Your task to perform on an android device: open app "Paramount+ | Peak Streaming" (install if not already installed) and go to login screen Image 0: 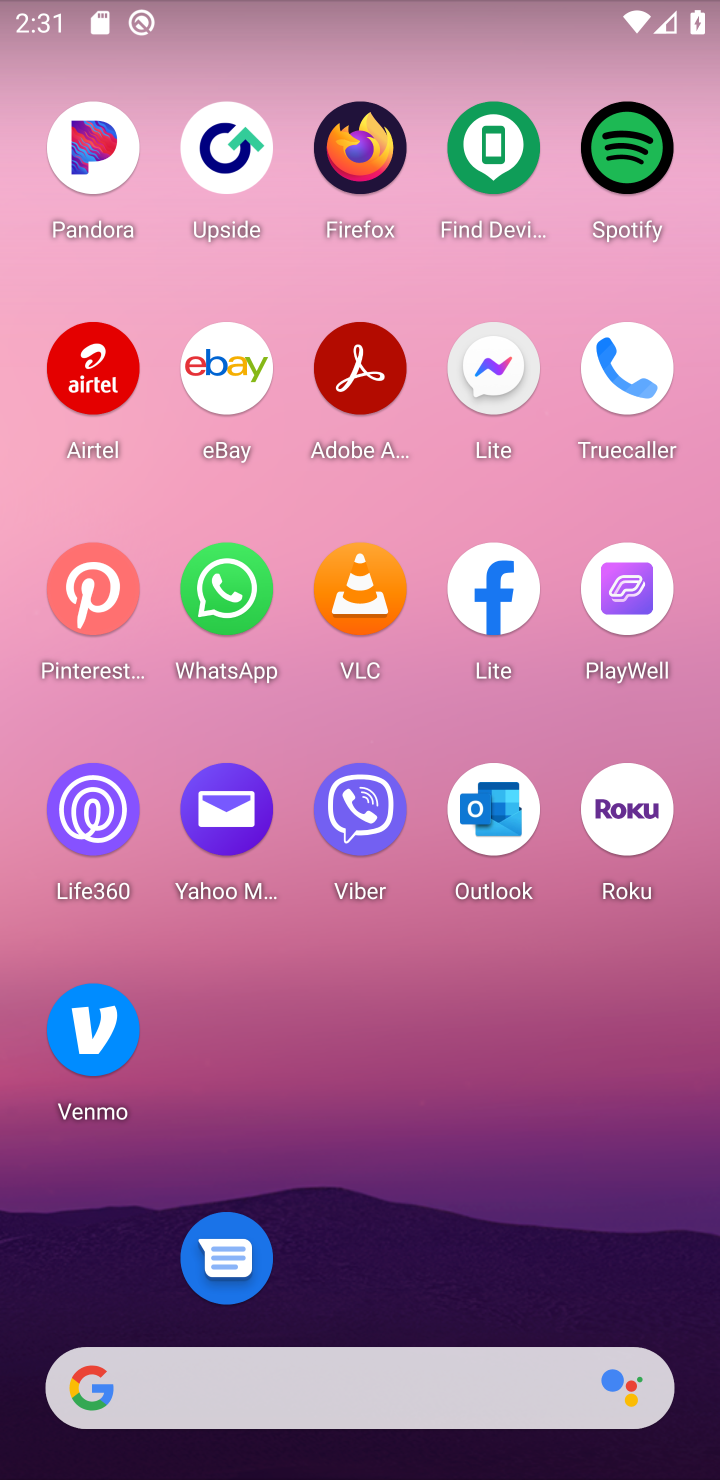
Step 0: press home button
Your task to perform on an android device: open app "Paramount+ | Peak Streaming" (install if not already installed) and go to login screen Image 1: 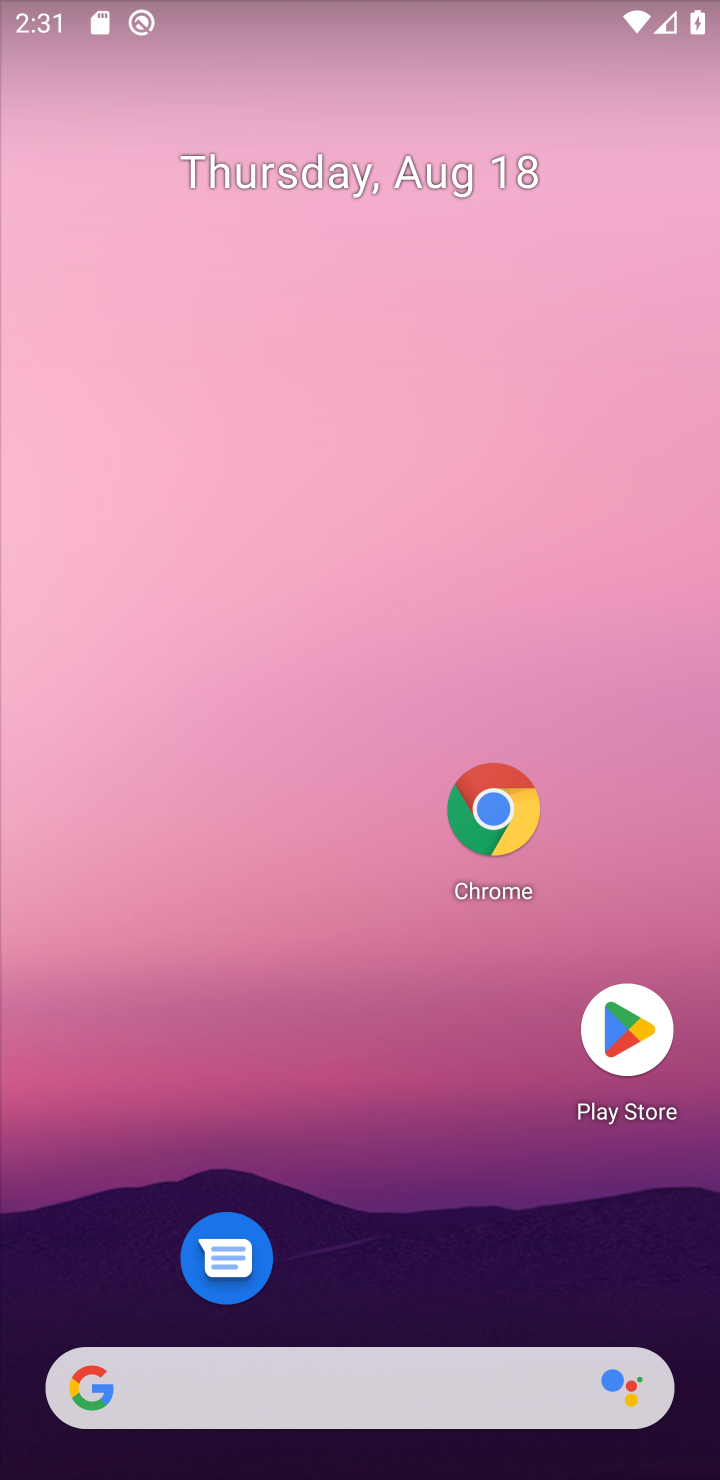
Step 1: click (625, 1022)
Your task to perform on an android device: open app "Paramount+ | Peak Streaming" (install if not already installed) and go to login screen Image 2: 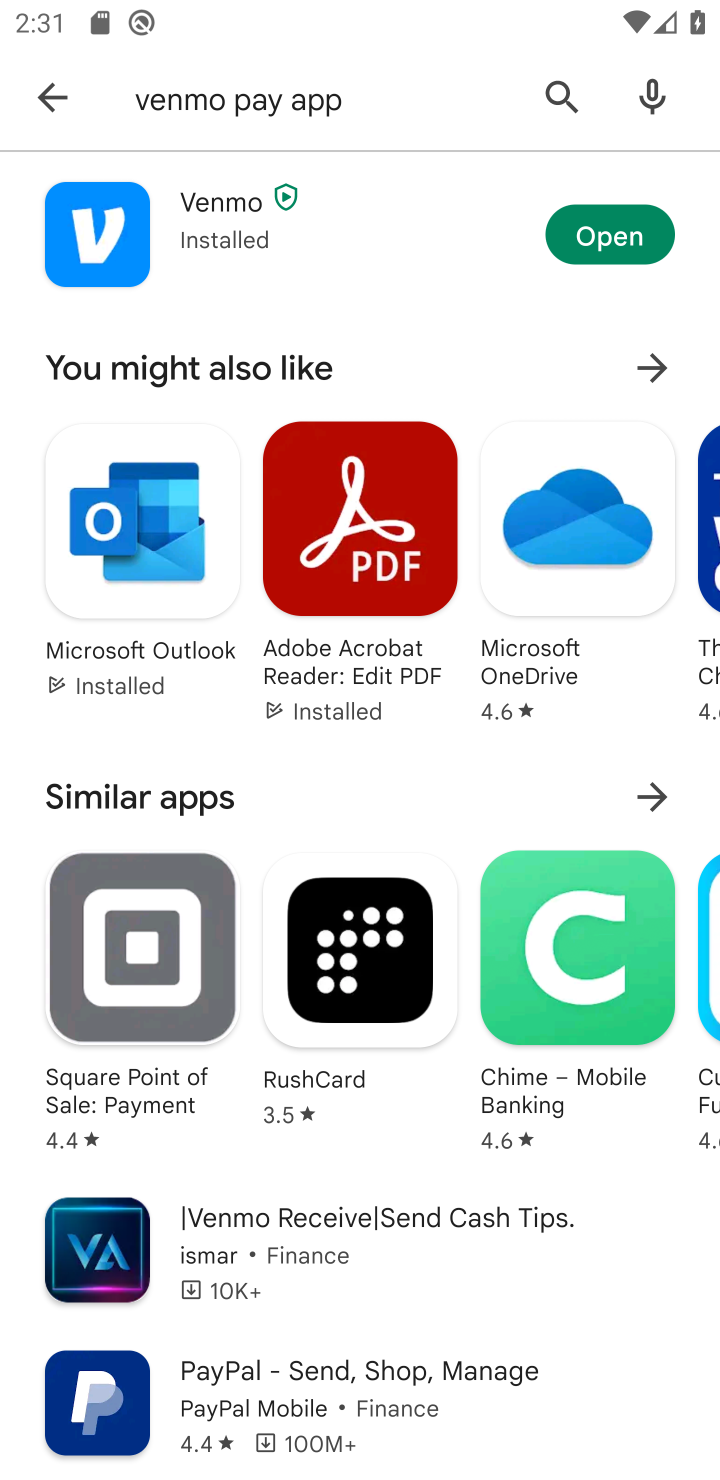
Step 2: click (45, 78)
Your task to perform on an android device: open app "Paramount+ | Peak Streaming" (install if not already installed) and go to login screen Image 3: 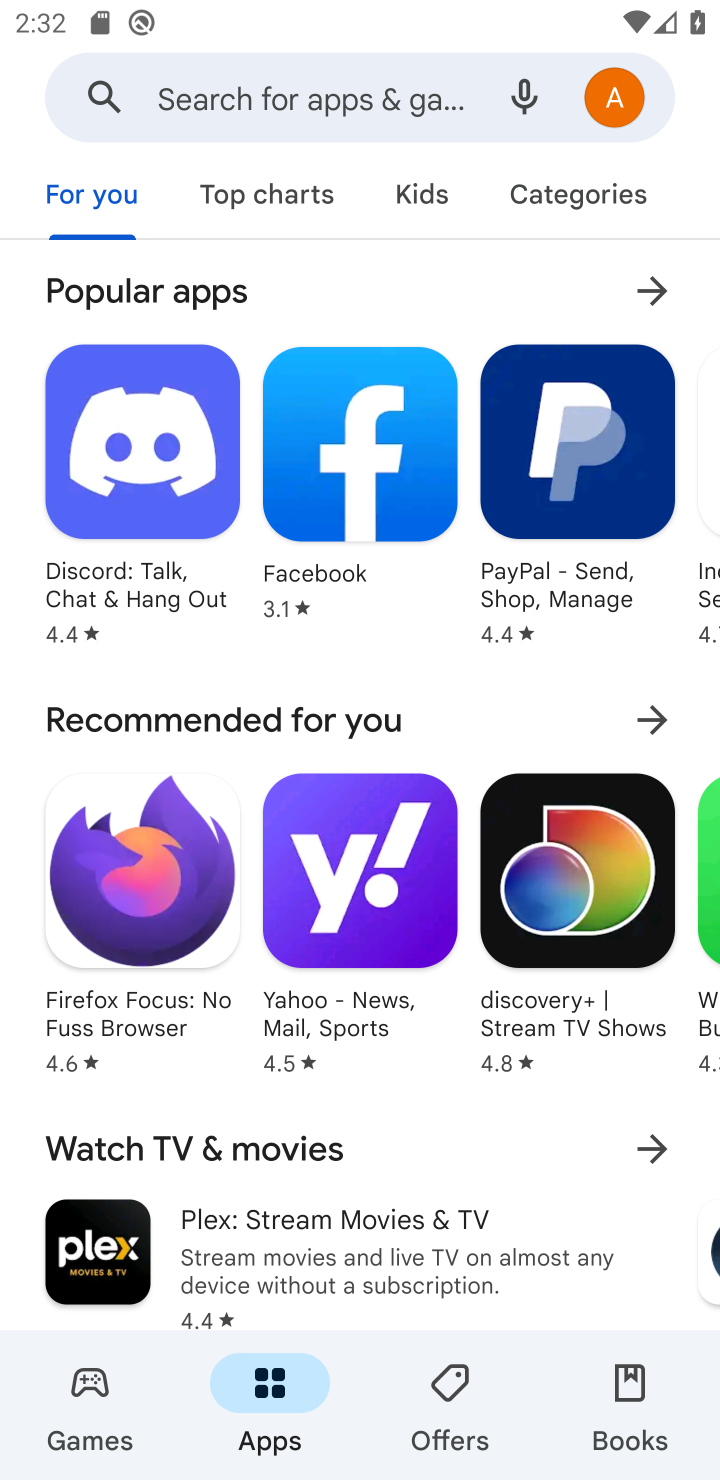
Step 3: click (258, 87)
Your task to perform on an android device: open app "Paramount+ | Peak Streaming" (install if not already installed) and go to login screen Image 4: 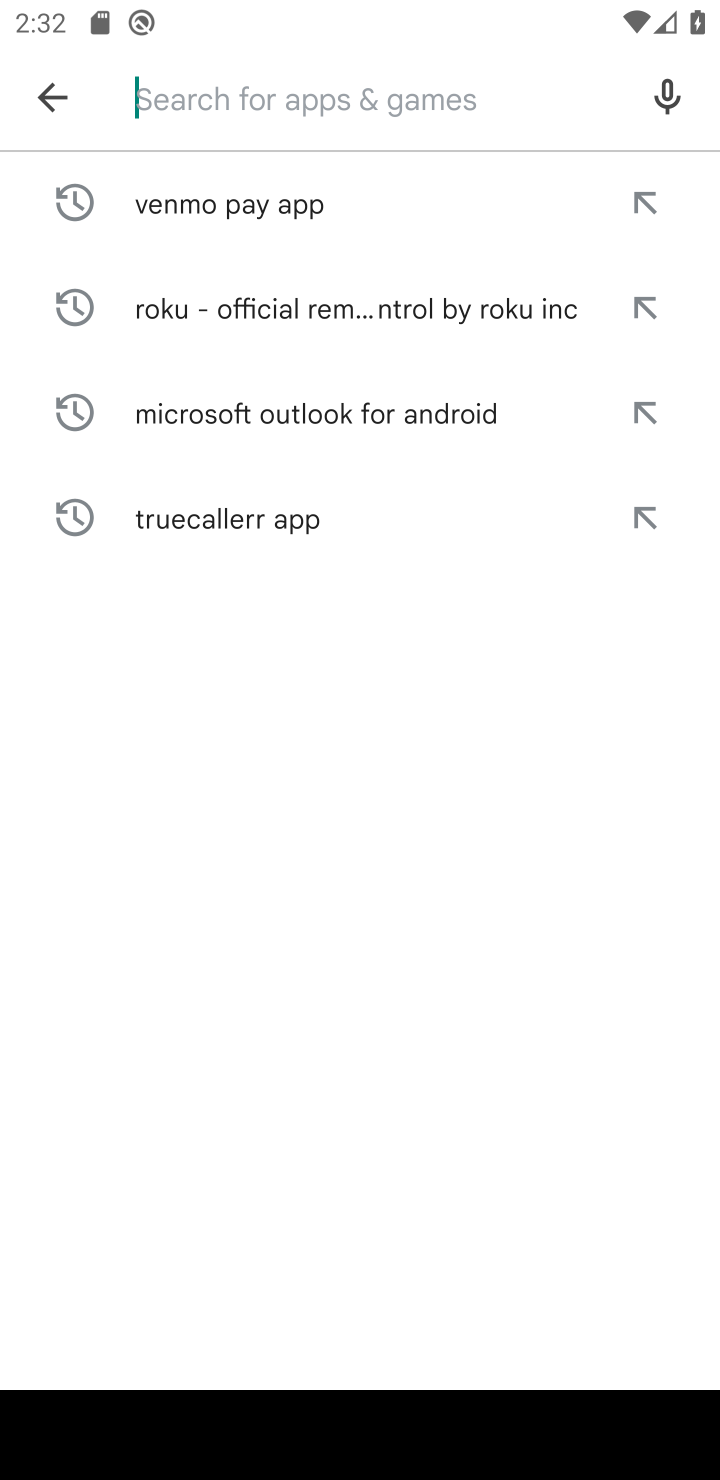
Step 4: type "Paramount+ "
Your task to perform on an android device: open app "Paramount+ | Peak Streaming" (install if not already installed) and go to login screen Image 5: 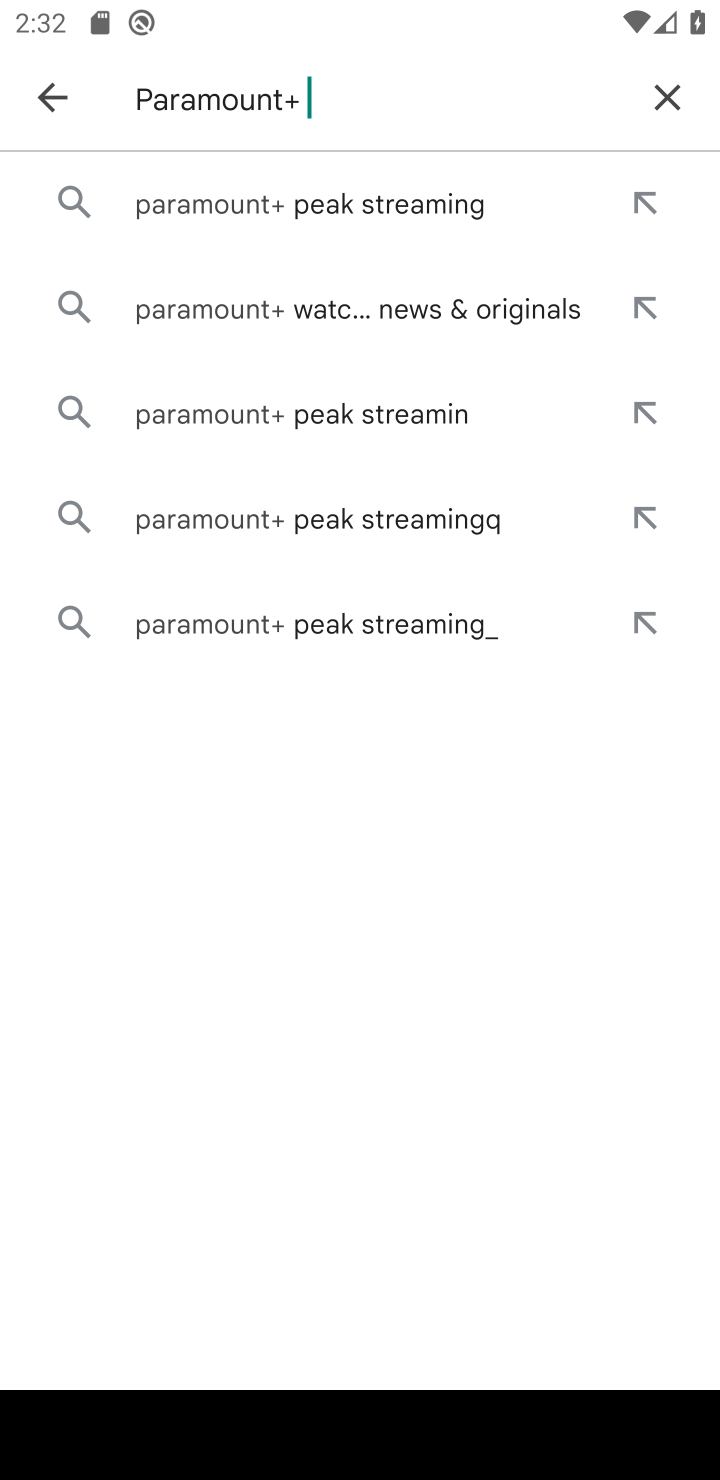
Step 5: click (327, 216)
Your task to perform on an android device: open app "Paramount+ | Peak Streaming" (install if not already installed) and go to login screen Image 6: 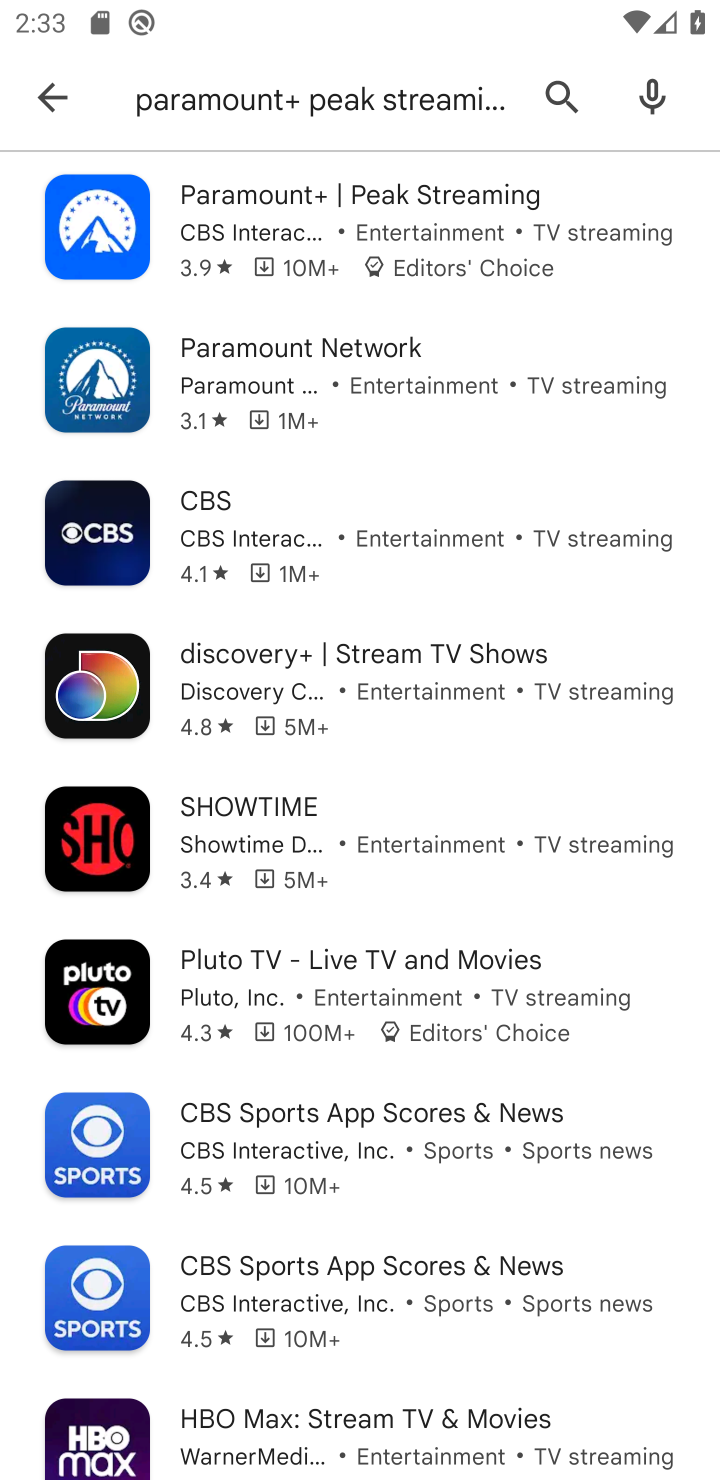
Step 6: click (260, 241)
Your task to perform on an android device: open app "Paramount+ | Peak Streaming" (install if not already installed) and go to login screen Image 7: 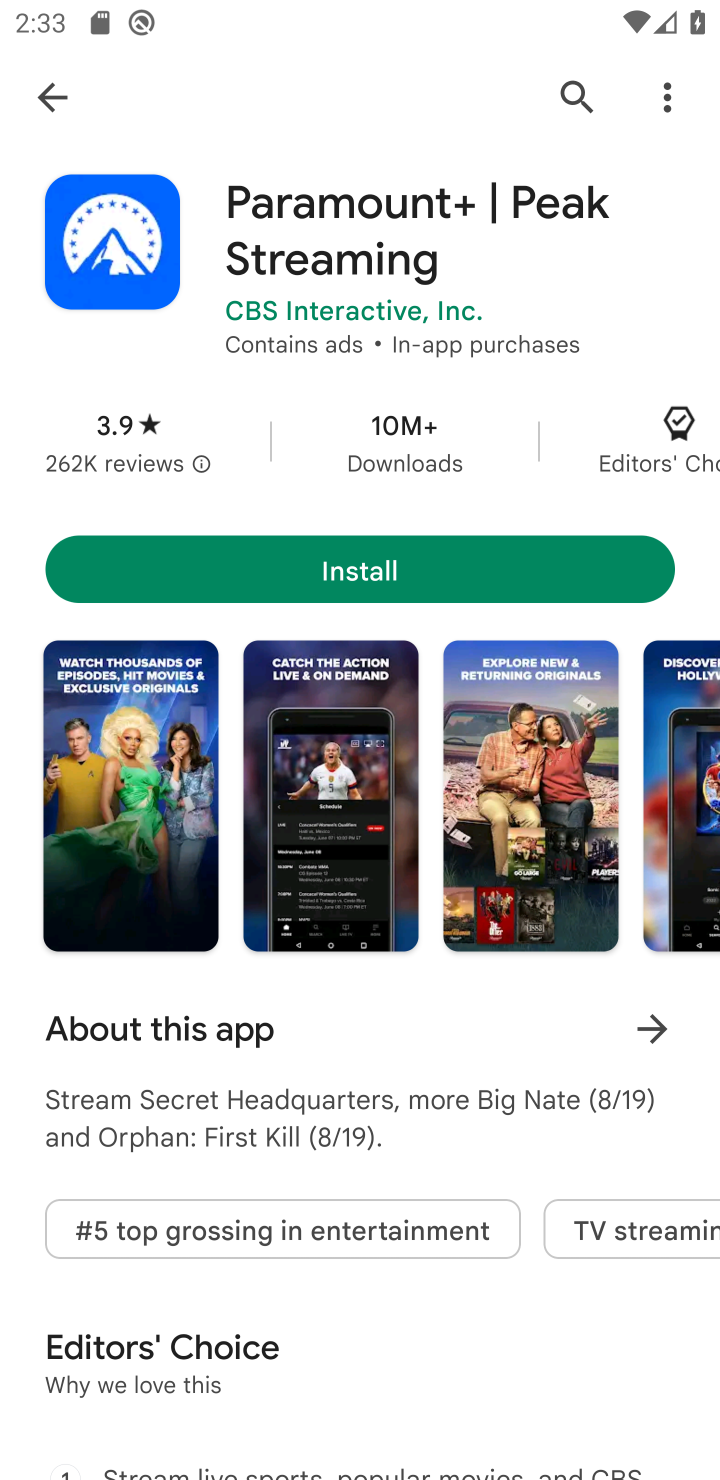
Step 7: click (274, 553)
Your task to perform on an android device: open app "Paramount+ | Peak Streaming" (install if not already installed) and go to login screen Image 8: 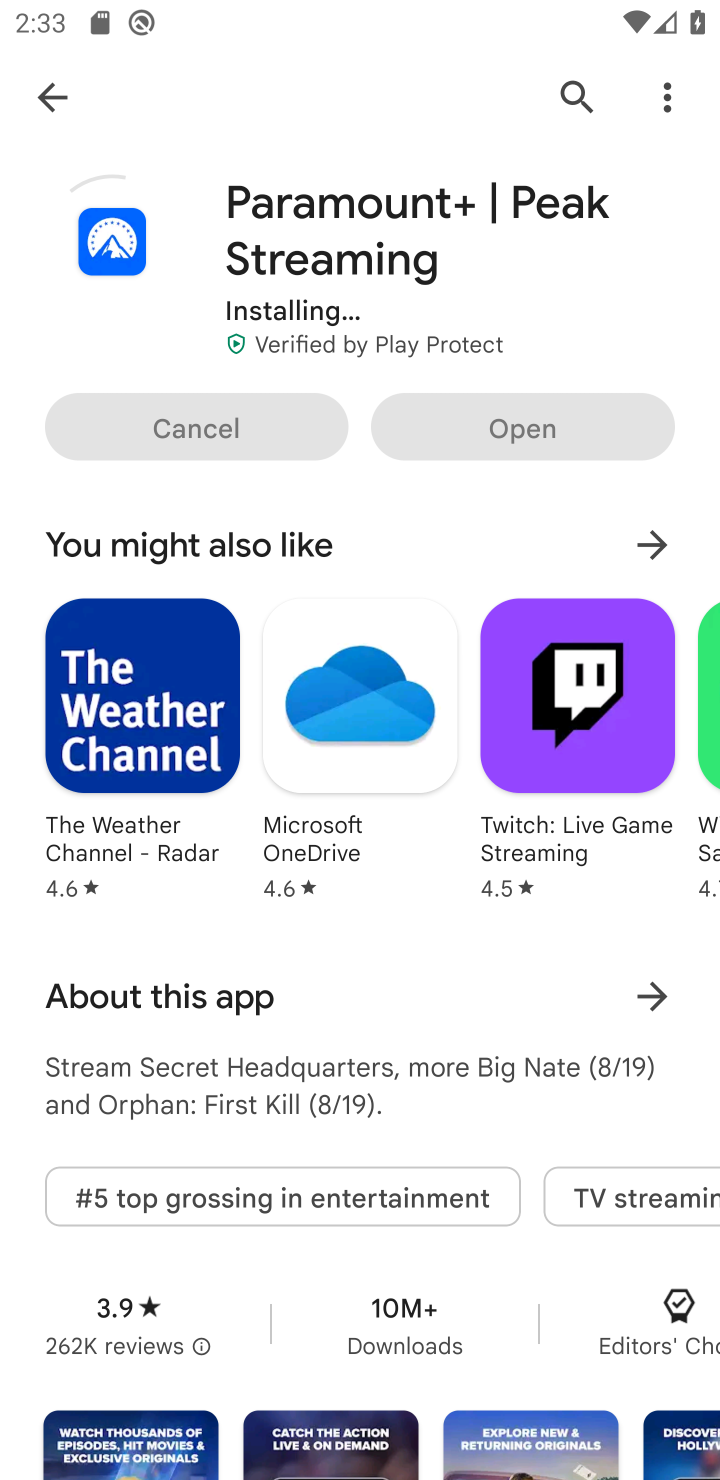
Step 8: task complete